Your task to perform on an android device: Search for corsair k70 on target.com, select the first entry, and add it to the cart. Image 0: 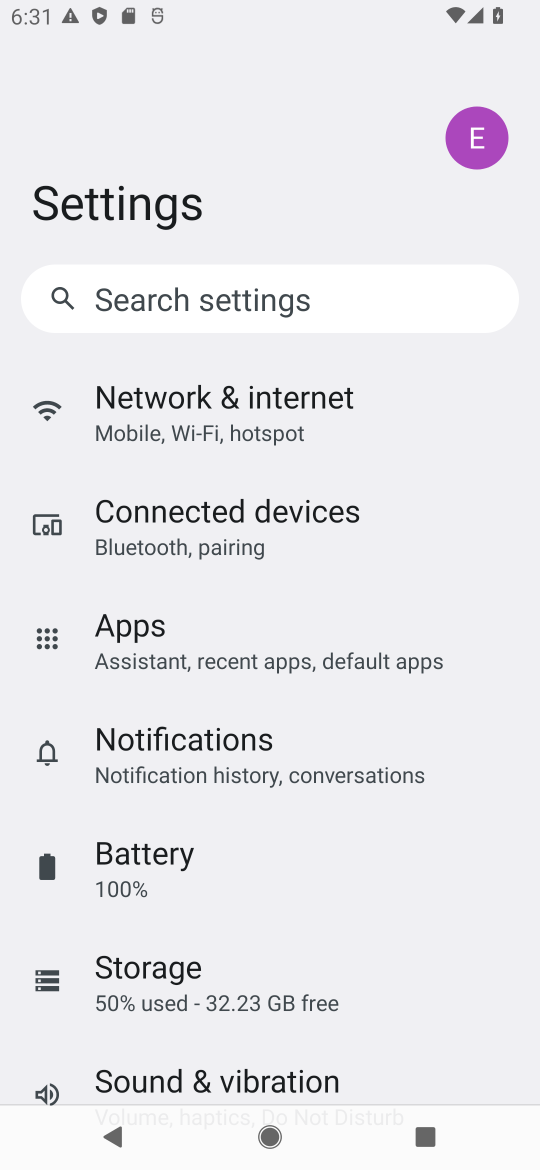
Step 0: press home button
Your task to perform on an android device: Search for corsair k70 on target.com, select the first entry, and add it to the cart. Image 1: 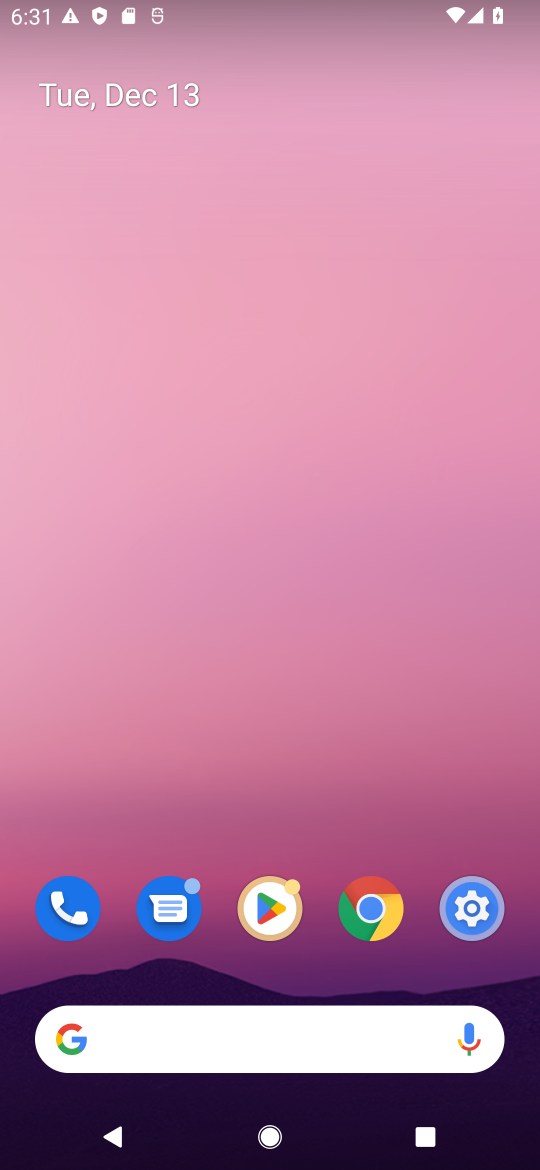
Step 1: click (122, 1037)
Your task to perform on an android device: Search for corsair k70 on target.com, select the first entry, and add it to the cart. Image 2: 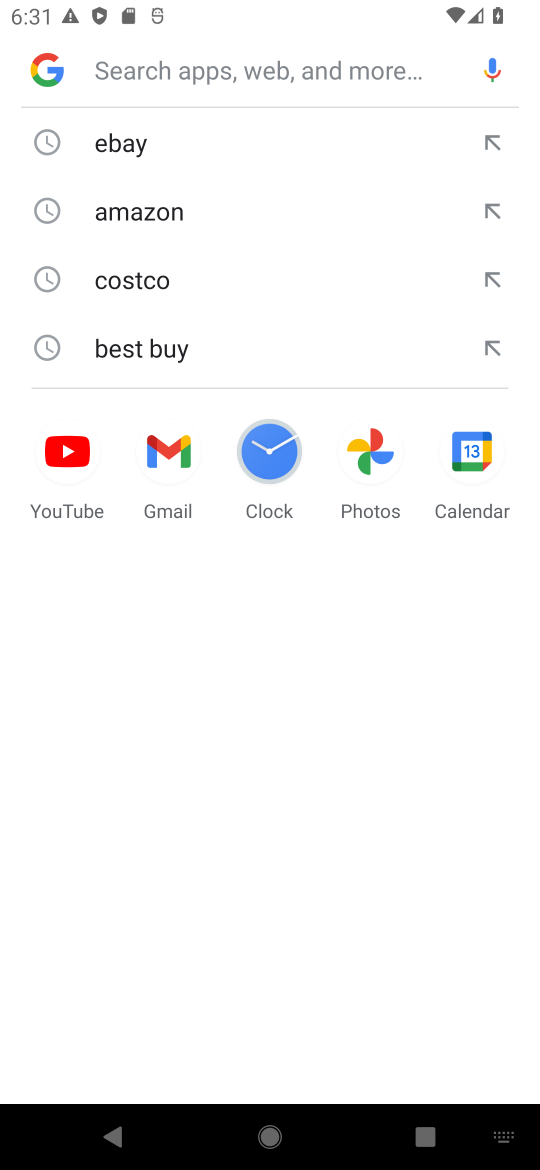
Step 2: type "target.com"
Your task to perform on an android device: Search for corsair k70 on target.com, select the first entry, and add it to the cart. Image 3: 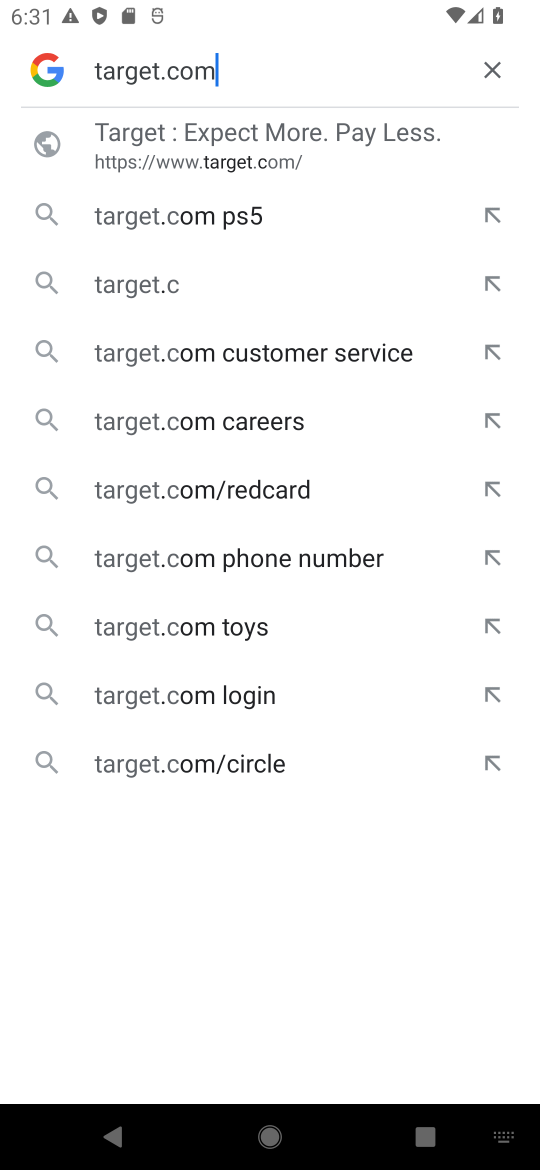
Step 3: press enter
Your task to perform on an android device: Search for corsair k70 on target.com, select the first entry, and add it to the cart. Image 4: 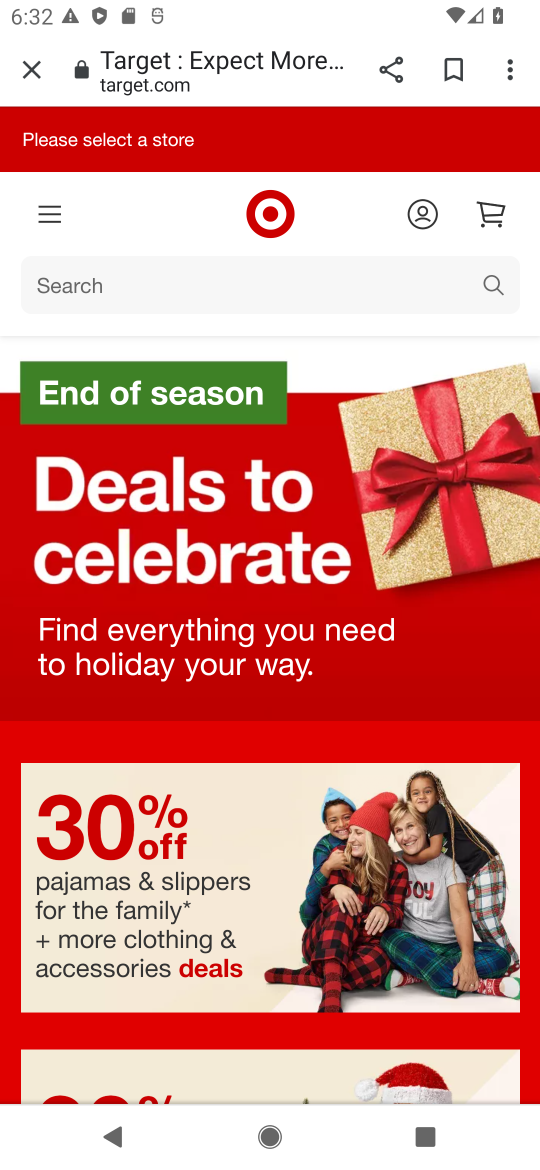
Step 4: click (134, 288)
Your task to perform on an android device: Search for corsair k70 on target.com, select the first entry, and add it to the cart. Image 5: 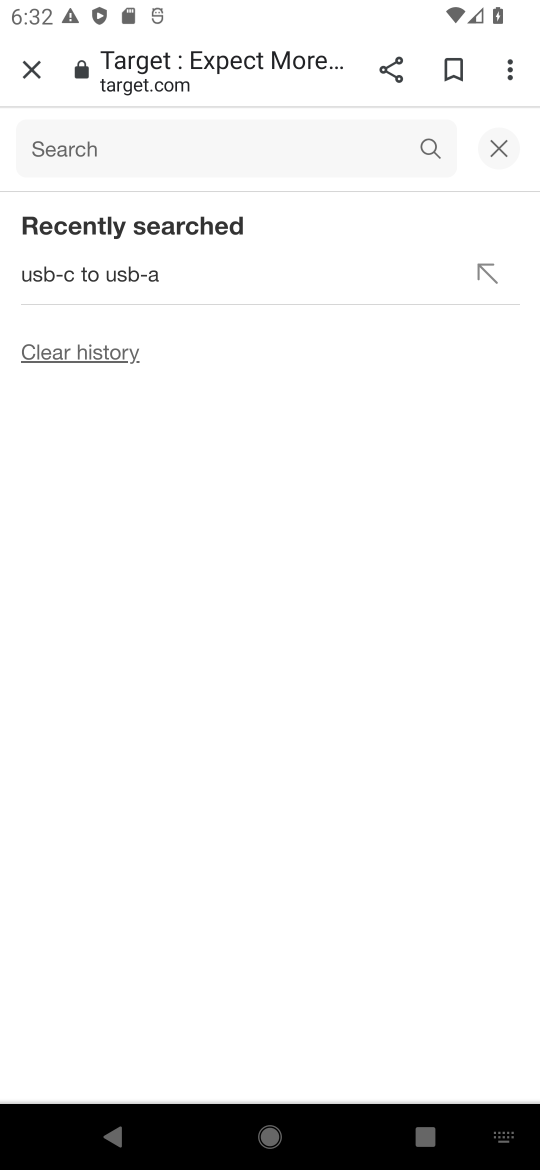
Step 5: type "corsair k70"
Your task to perform on an android device: Search for corsair k70 on target.com, select the first entry, and add it to the cart. Image 6: 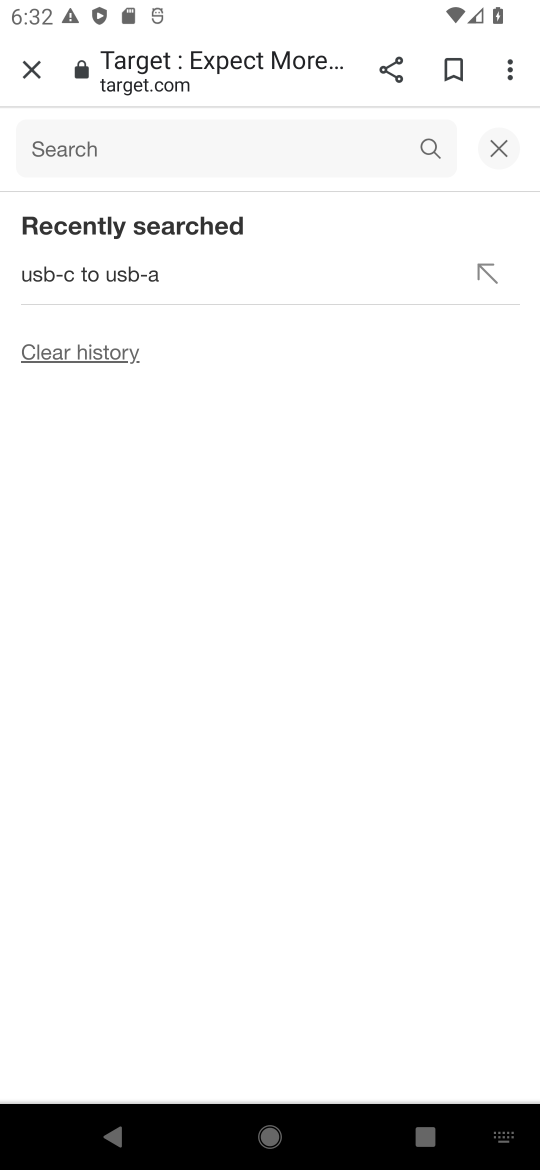
Step 6: press enter
Your task to perform on an android device: Search for corsair k70 on target.com, select the first entry, and add it to the cart. Image 7: 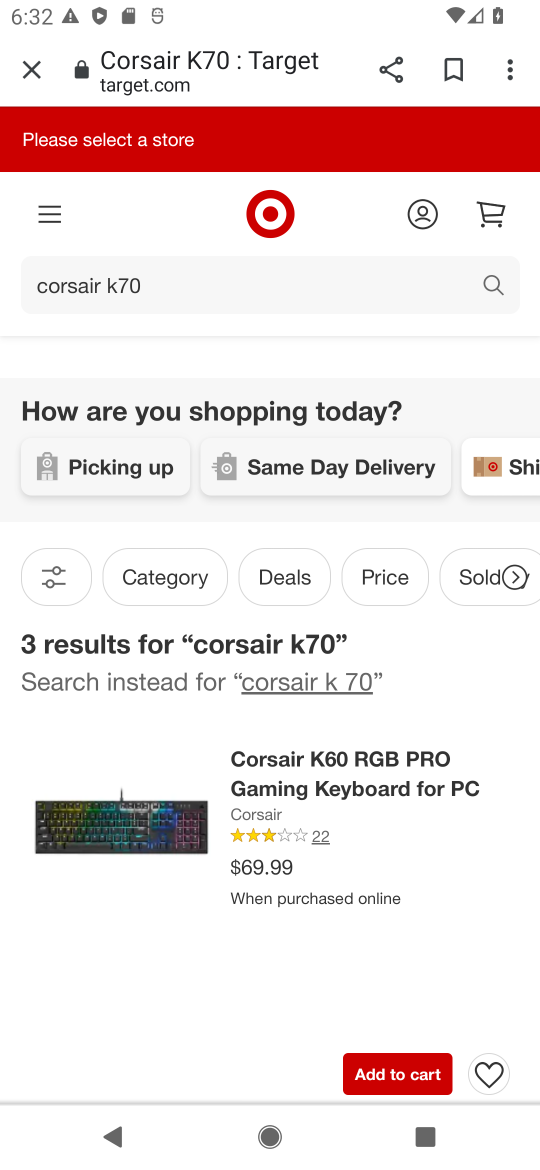
Step 7: task complete